Your task to perform on an android device: Open Maps and search for coffee Image 0: 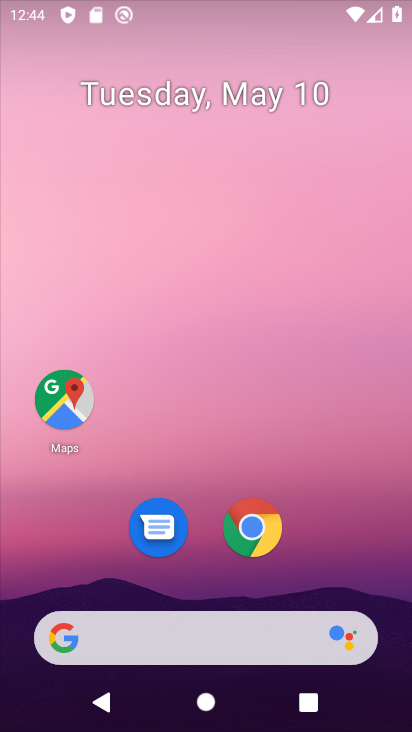
Step 0: drag from (311, 549) to (316, 143)
Your task to perform on an android device: Open Maps and search for coffee Image 1: 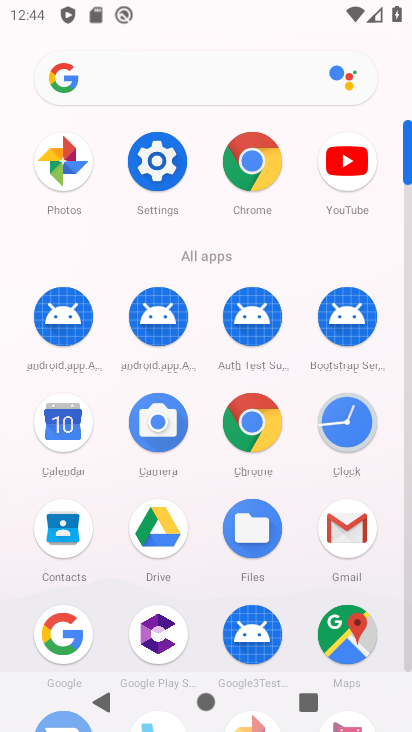
Step 1: click (333, 619)
Your task to perform on an android device: Open Maps and search for coffee Image 2: 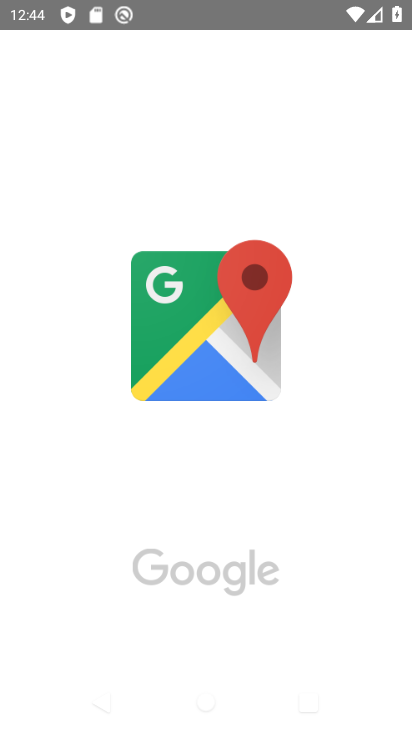
Step 2: drag from (276, 413) to (268, 567)
Your task to perform on an android device: Open Maps and search for coffee Image 3: 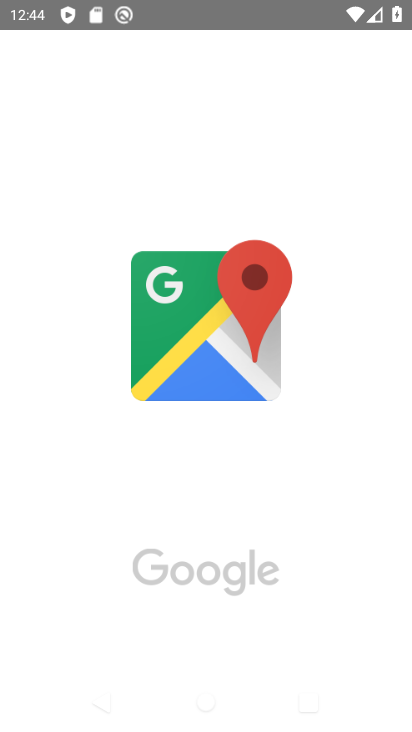
Step 3: click (266, 563)
Your task to perform on an android device: Open Maps and search for coffee Image 4: 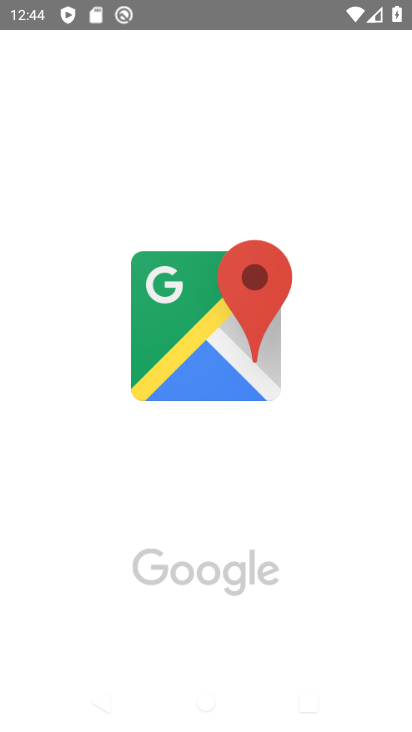
Step 4: click (181, 310)
Your task to perform on an android device: Open Maps and search for coffee Image 5: 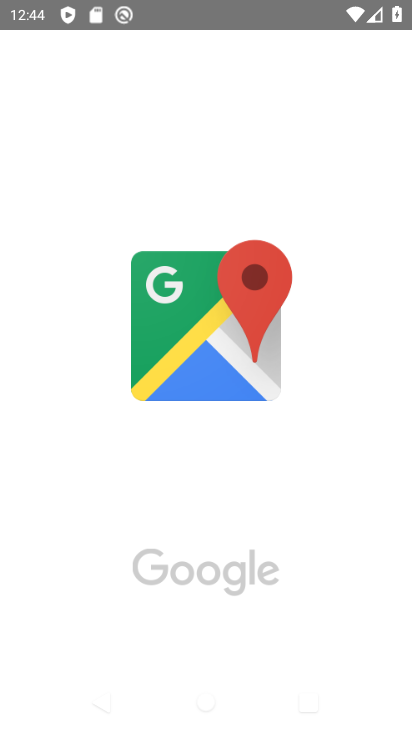
Step 5: click (224, 212)
Your task to perform on an android device: Open Maps and search for coffee Image 6: 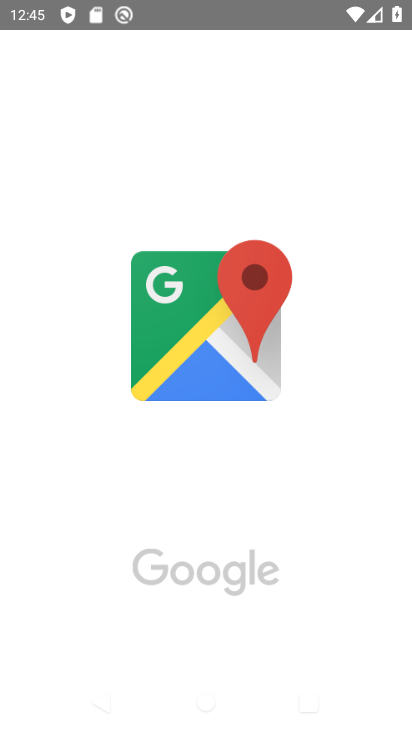
Step 6: task complete